Your task to perform on an android device: Open calendar and show me the fourth week of next month Image 0: 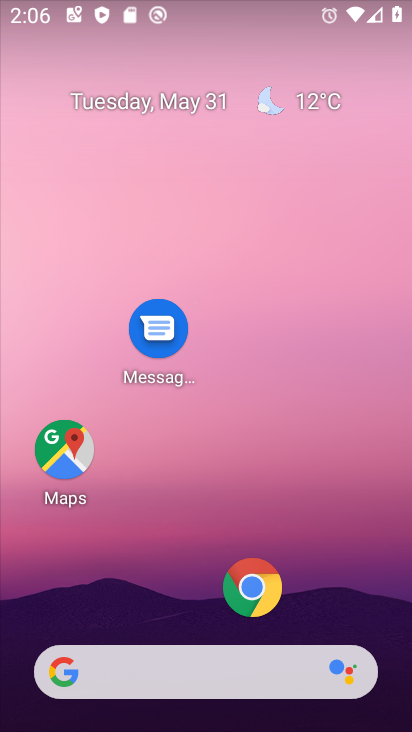
Step 0: click (385, 66)
Your task to perform on an android device: Open calendar and show me the fourth week of next month Image 1: 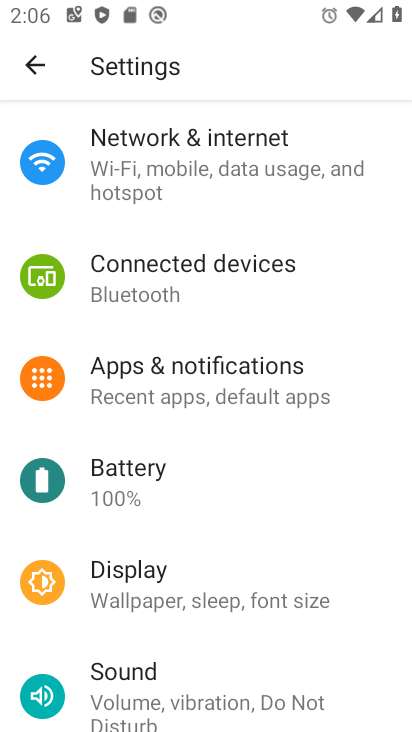
Step 1: drag from (236, 550) to (252, 317)
Your task to perform on an android device: Open calendar and show me the fourth week of next month Image 2: 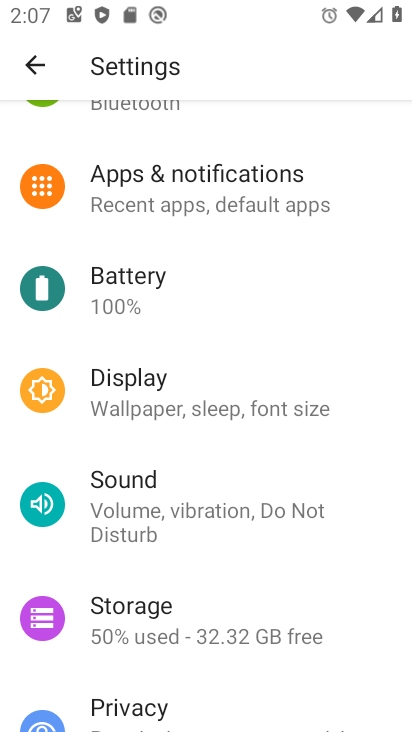
Step 2: press home button
Your task to perform on an android device: Open calendar and show me the fourth week of next month Image 3: 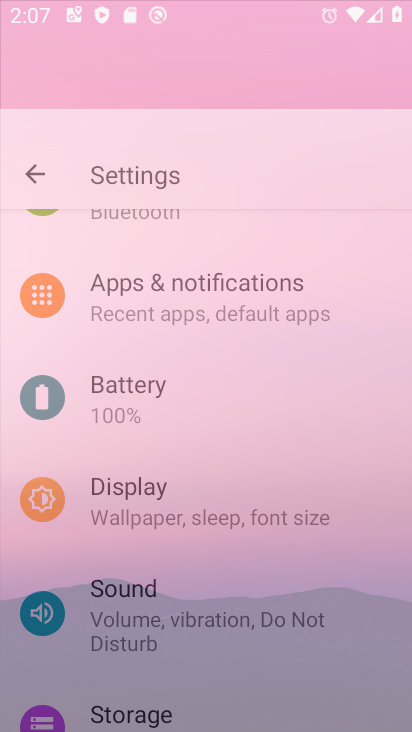
Step 3: drag from (220, 627) to (305, 85)
Your task to perform on an android device: Open calendar and show me the fourth week of next month Image 4: 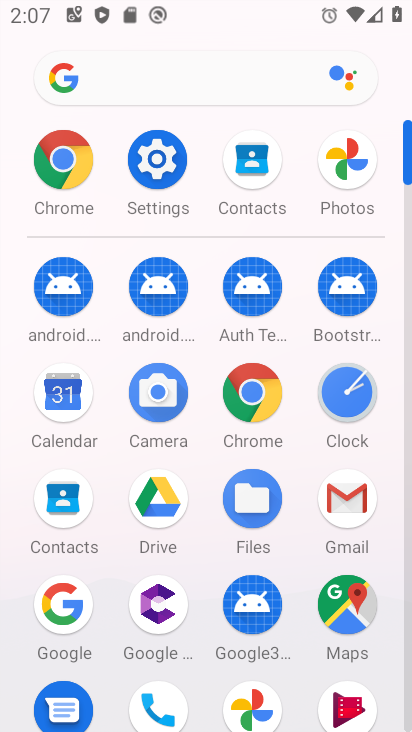
Step 4: click (80, 386)
Your task to perform on an android device: Open calendar and show me the fourth week of next month Image 5: 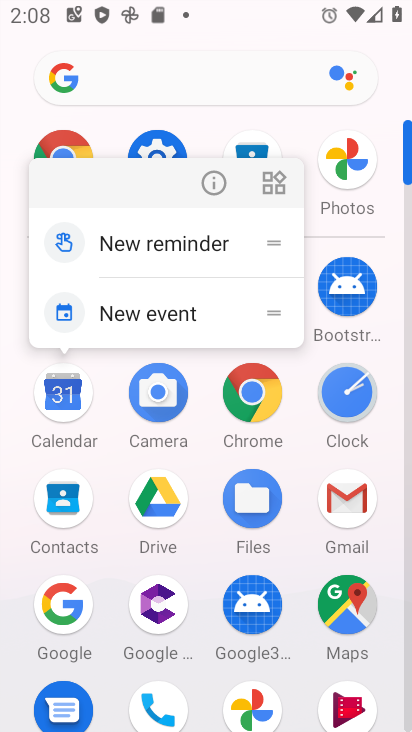
Step 5: click (193, 89)
Your task to perform on an android device: Open calendar and show me the fourth week of next month Image 6: 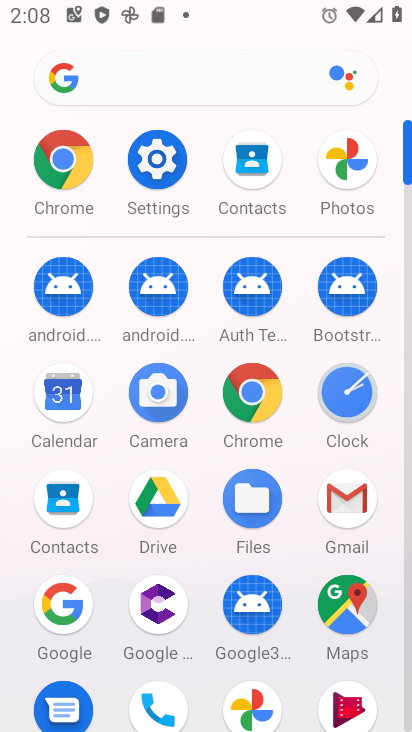
Step 6: click (74, 391)
Your task to perform on an android device: Open calendar and show me the fourth week of next month Image 7: 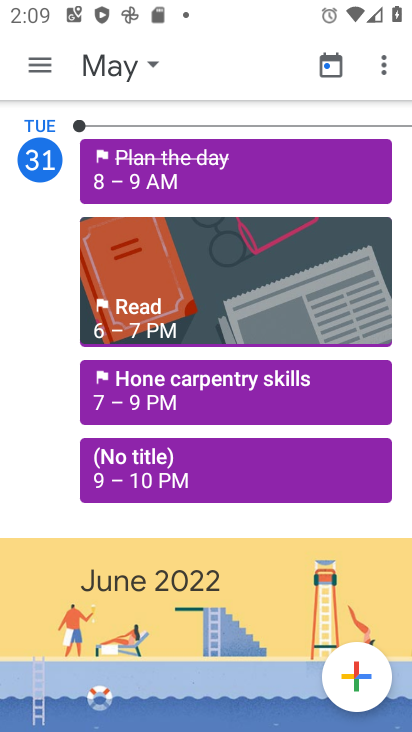
Step 7: drag from (325, 575) to (337, 257)
Your task to perform on an android device: Open calendar and show me the fourth week of next month Image 8: 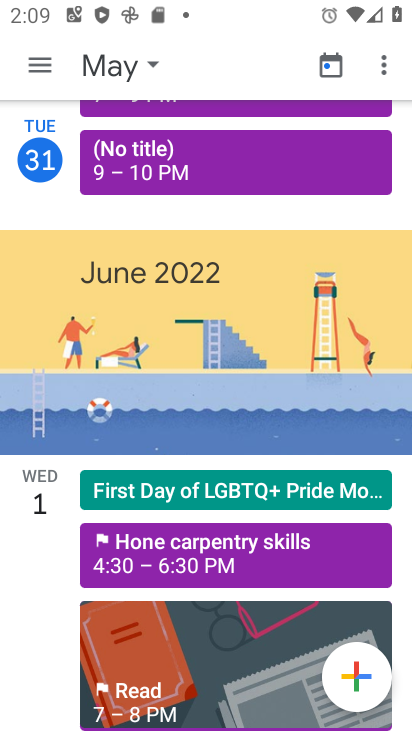
Step 8: click (104, 72)
Your task to perform on an android device: Open calendar and show me the fourth week of next month Image 9: 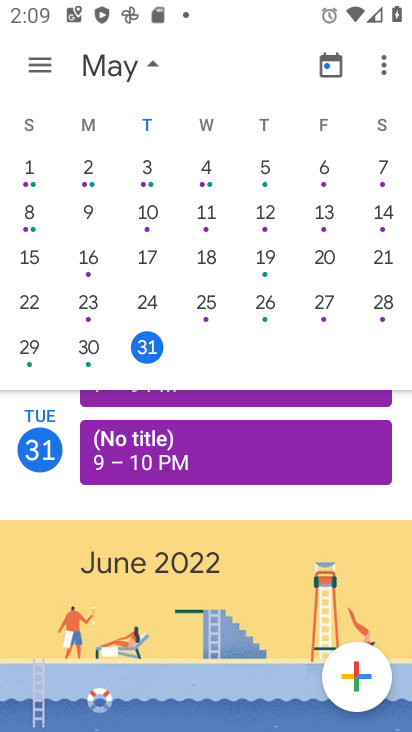
Step 9: task complete